Your task to perform on an android device: Is it going to rain today? Image 0: 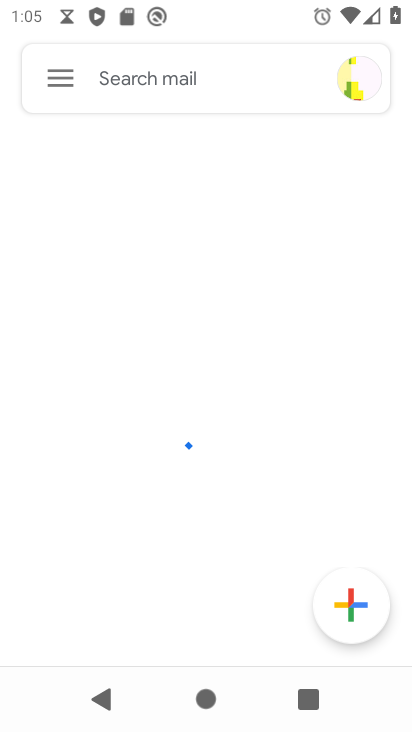
Step 0: press home button
Your task to perform on an android device: Is it going to rain today? Image 1: 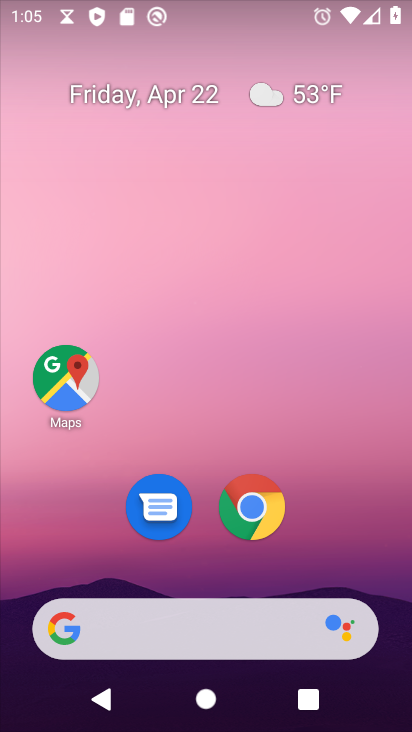
Step 1: click (266, 520)
Your task to perform on an android device: Is it going to rain today? Image 2: 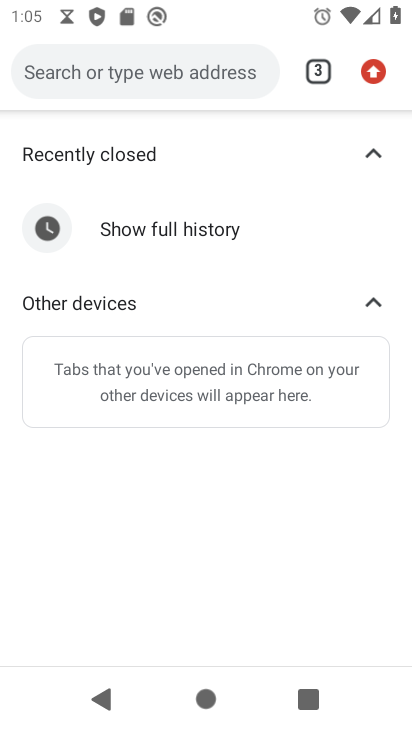
Step 2: click (321, 72)
Your task to perform on an android device: Is it going to rain today? Image 3: 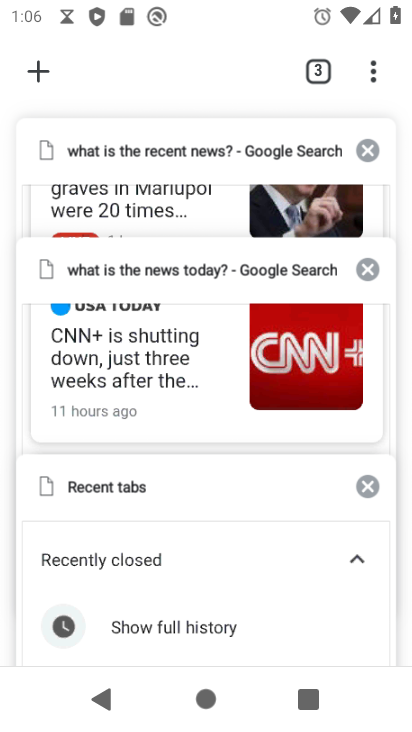
Step 3: click (36, 69)
Your task to perform on an android device: Is it going to rain today? Image 4: 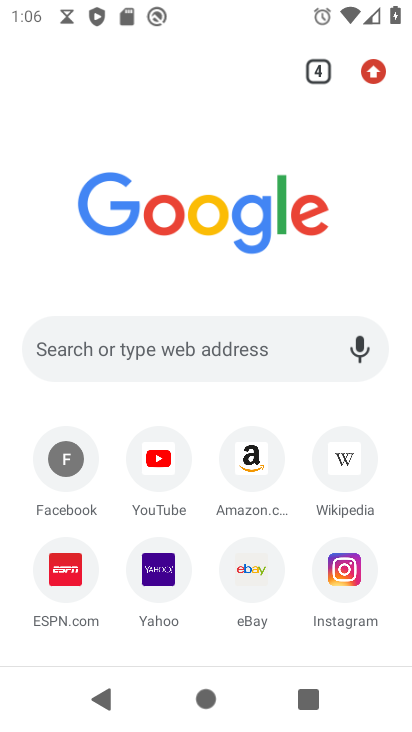
Step 4: click (226, 350)
Your task to perform on an android device: Is it going to rain today? Image 5: 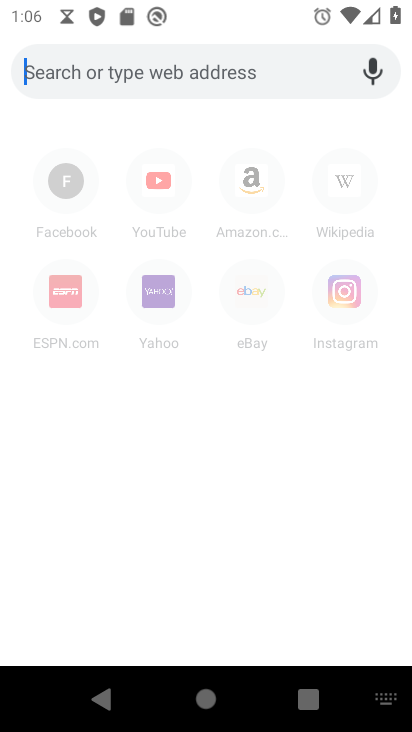
Step 5: type "is it going to rain today"
Your task to perform on an android device: Is it going to rain today? Image 6: 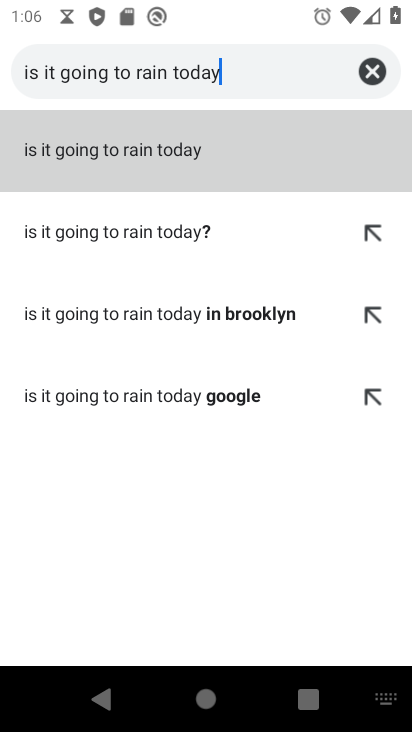
Step 6: click (140, 229)
Your task to perform on an android device: Is it going to rain today? Image 7: 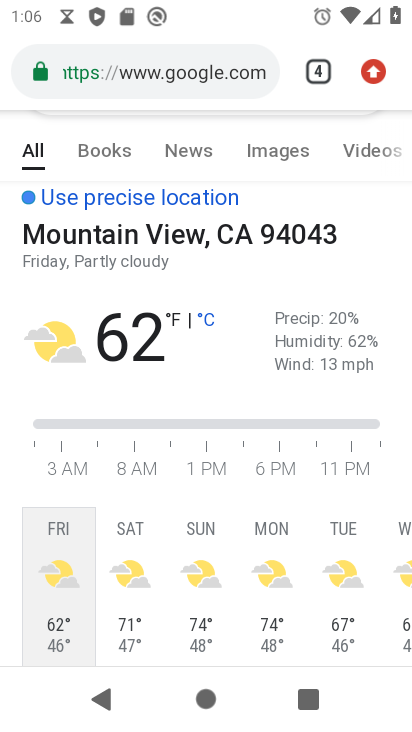
Step 7: task complete